Your task to perform on an android device: turn notification dots on Image 0: 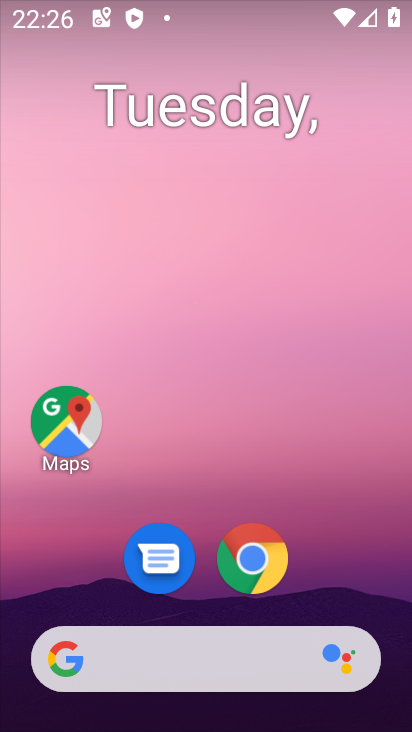
Step 0: drag from (315, 584) to (333, 3)
Your task to perform on an android device: turn notification dots on Image 1: 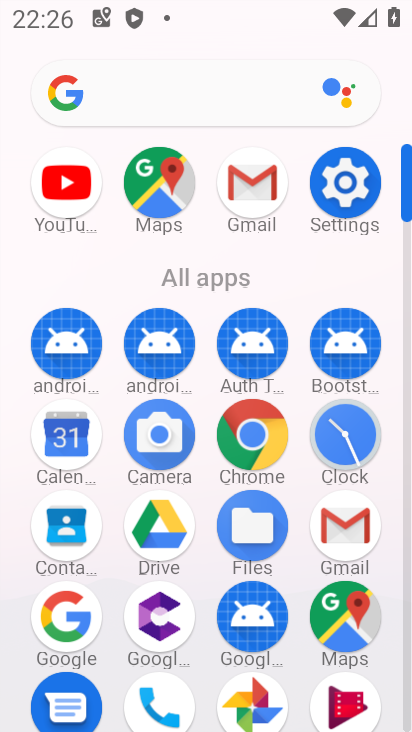
Step 1: click (335, 189)
Your task to perform on an android device: turn notification dots on Image 2: 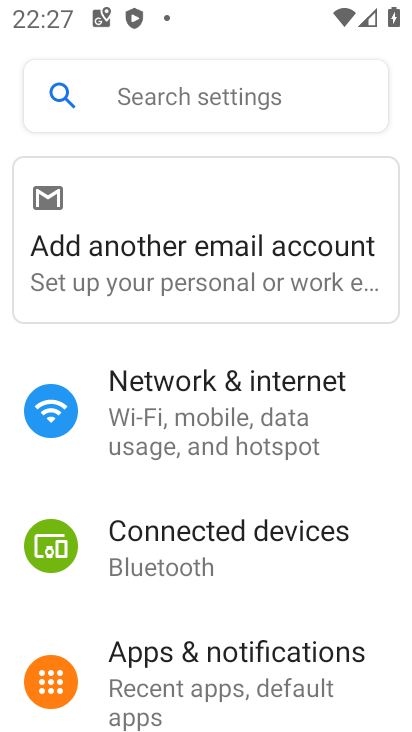
Step 2: click (207, 654)
Your task to perform on an android device: turn notification dots on Image 3: 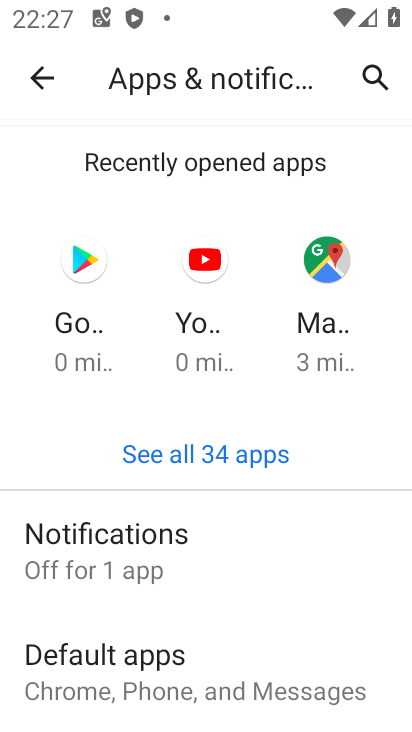
Step 3: click (208, 535)
Your task to perform on an android device: turn notification dots on Image 4: 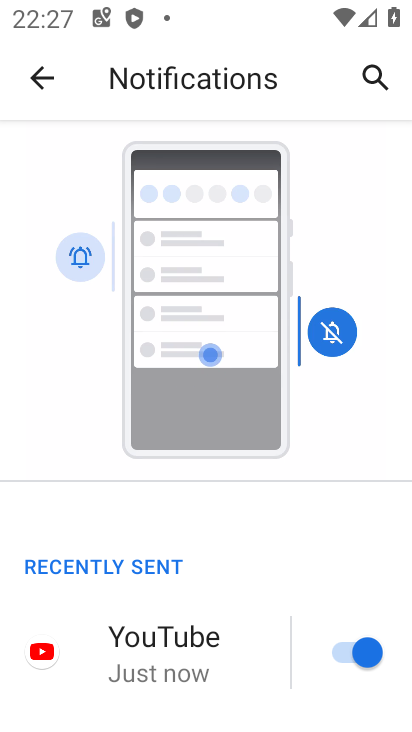
Step 4: drag from (192, 680) to (189, 99)
Your task to perform on an android device: turn notification dots on Image 5: 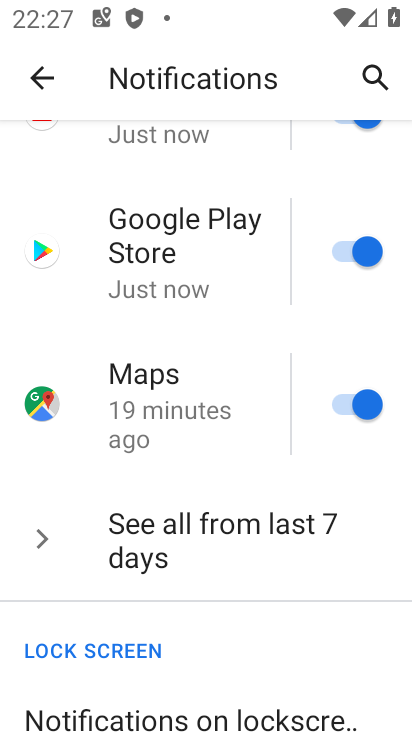
Step 5: drag from (209, 583) to (230, 63)
Your task to perform on an android device: turn notification dots on Image 6: 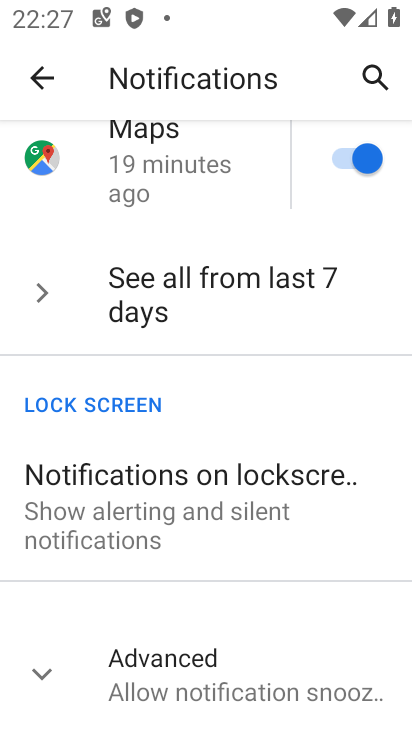
Step 6: click (178, 674)
Your task to perform on an android device: turn notification dots on Image 7: 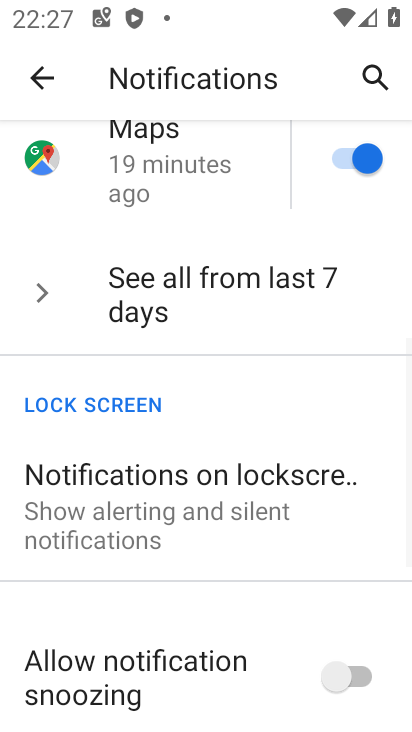
Step 7: task complete